Your task to perform on an android device: Open settings Image 0: 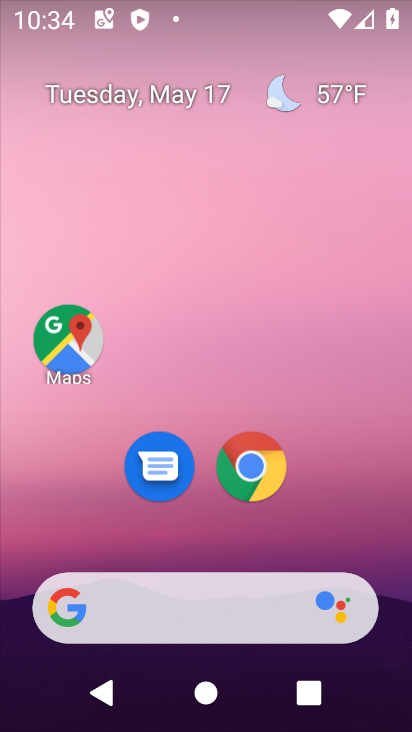
Step 0: drag from (93, 567) to (186, 134)
Your task to perform on an android device: Open settings Image 1: 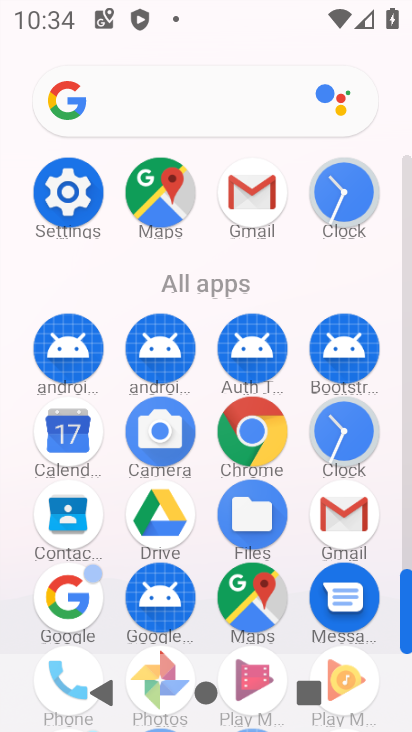
Step 1: drag from (186, 623) to (229, 325)
Your task to perform on an android device: Open settings Image 2: 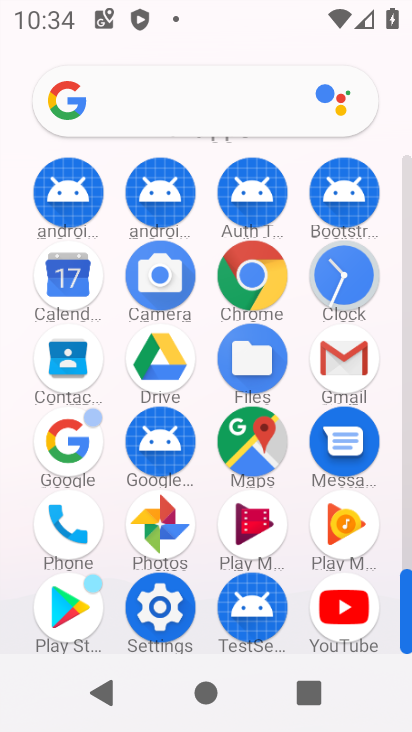
Step 2: click (167, 630)
Your task to perform on an android device: Open settings Image 3: 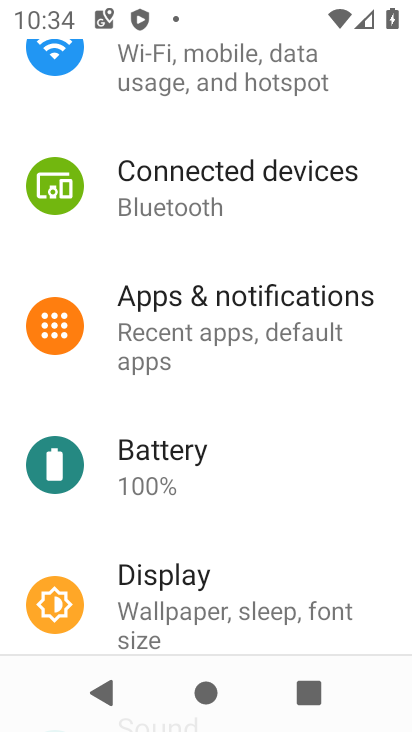
Step 3: task complete